Your task to perform on an android device: open chrome privacy settings Image 0: 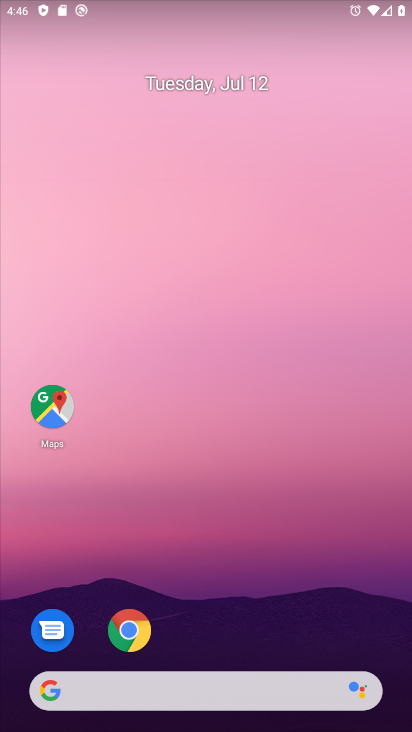
Step 0: drag from (228, 651) to (174, 456)
Your task to perform on an android device: open chrome privacy settings Image 1: 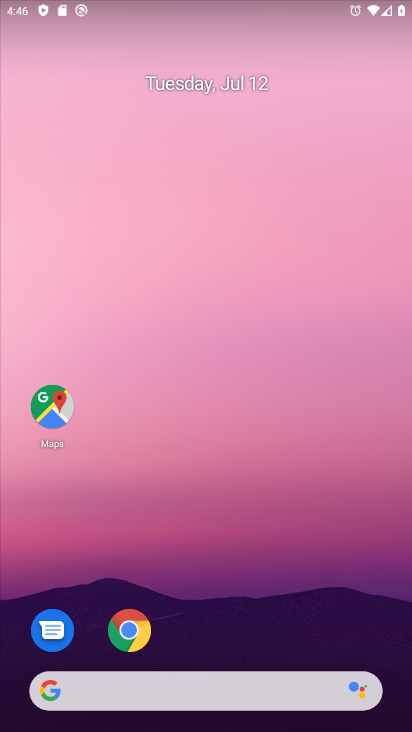
Step 1: drag from (202, 472) to (193, 66)
Your task to perform on an android device: open chrome privacy settings Image 2: 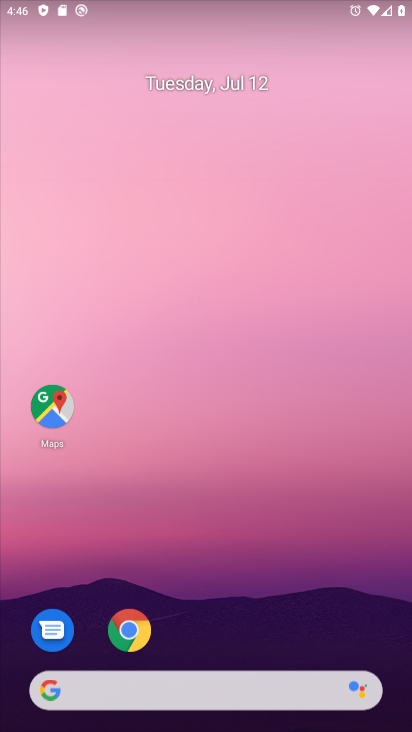
Step 2: drag from (240, 327) to (199, 116)
Your task to perform on an android device: open chrome privacy settings Image 3: 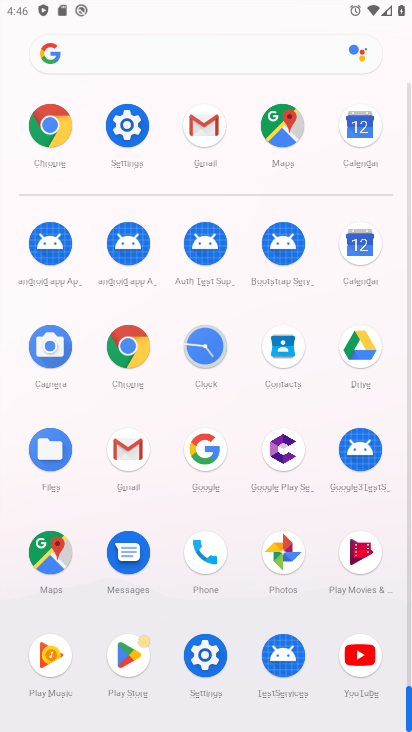
Step 3: click (51, 118)
Your task to perform on an android device: open chrome privacy settings Image 4: 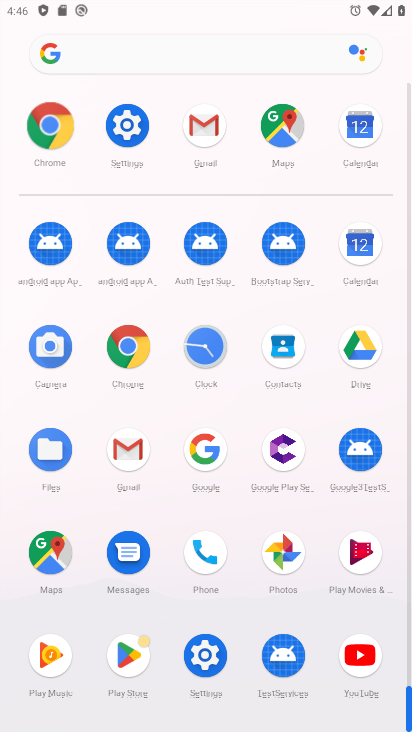
Step 4: click (51, 119)
Your task to perform on an android device: open chrome privacy settings Image 5: 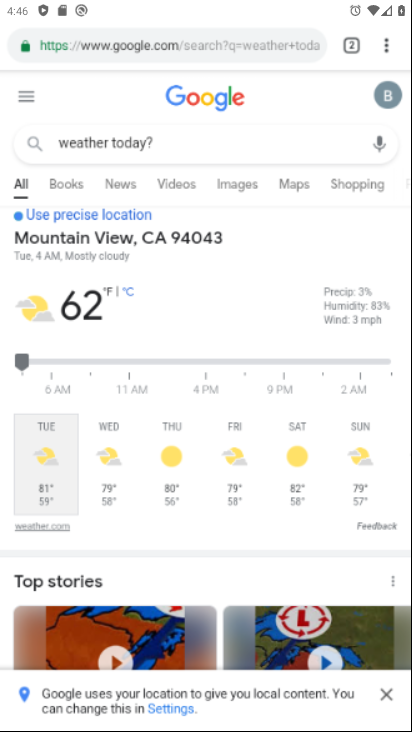
Step 5: click (49, 119)
Your task to perform on an android device: open chrome privacy settings Image 6: 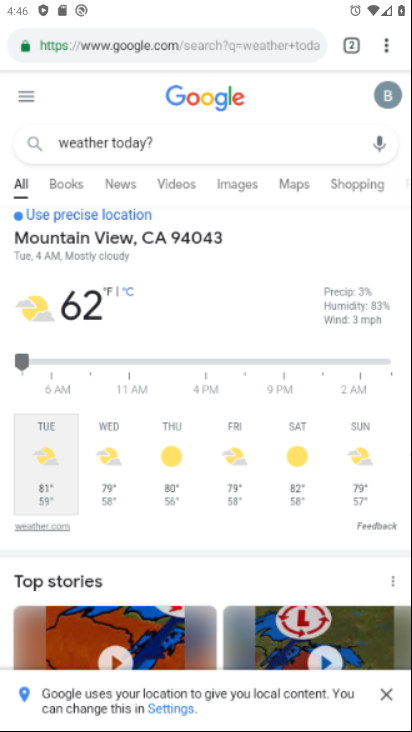
Step 6: click (54, 116)
Your task to perform on an android device: open chrome privacy settings Image 7: 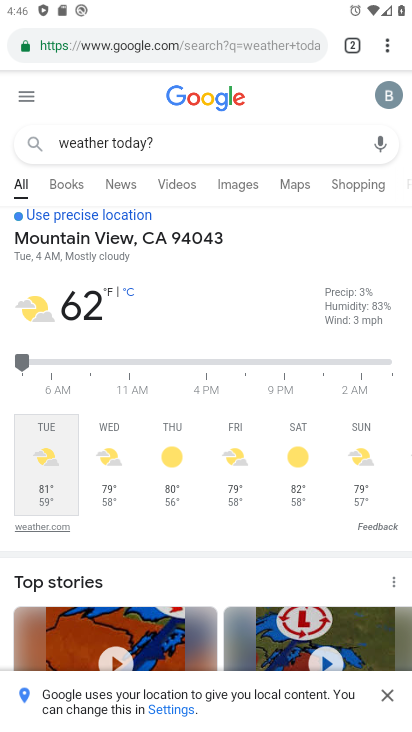
Step 7: drag from (381, 36) to (222, 505)
Your task to perform on an android device: open chrome privacy settings Image 8: 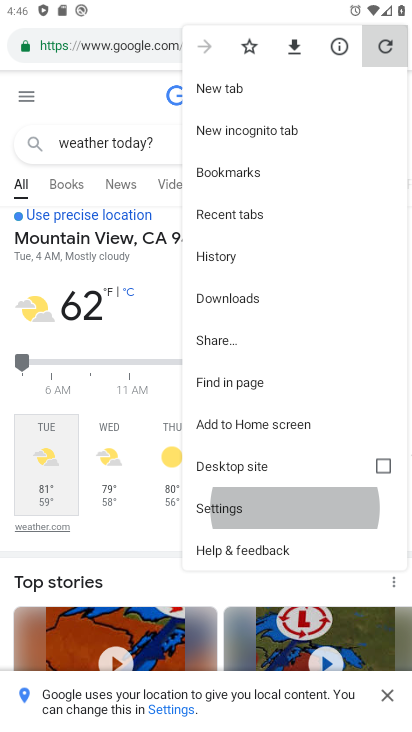
Step 8: click (222, 508)
Your task to perform on an android device: open chrome privacy settings Image 9: 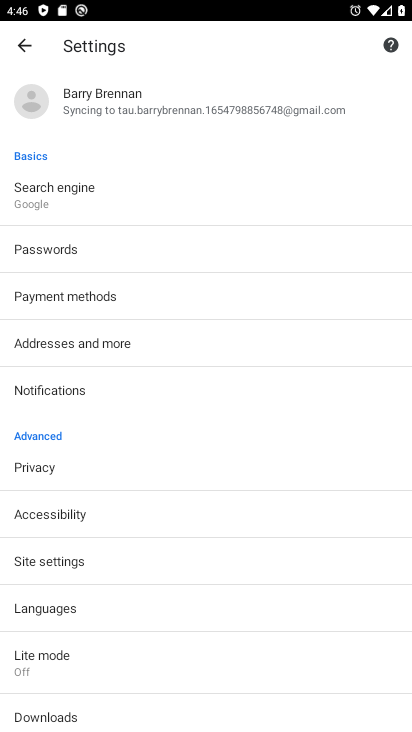
Step 9: click (31, 461)
Your task to perform on an android device: open chrome privacy settings Image 10: 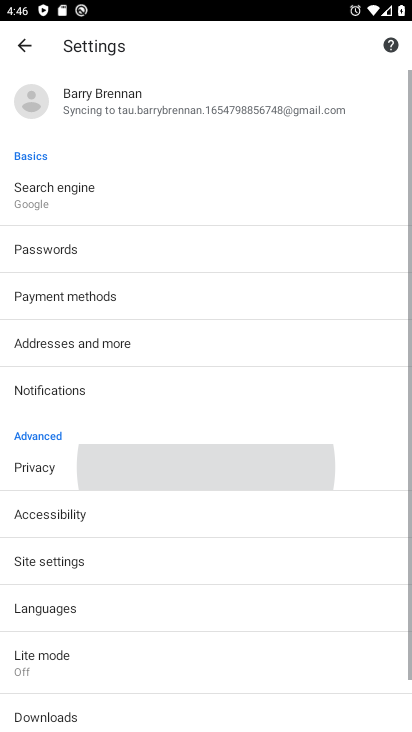
Step 10: click (31, 461)
Your task to perform on an android device: open chrome privacy settings Image 11: 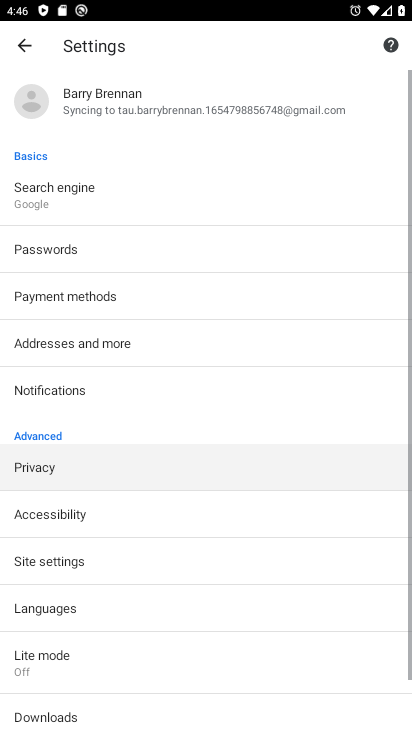
Step 11: click (31, 461)
Your task to perform on an android device: open chrome privacy settings Image 12: 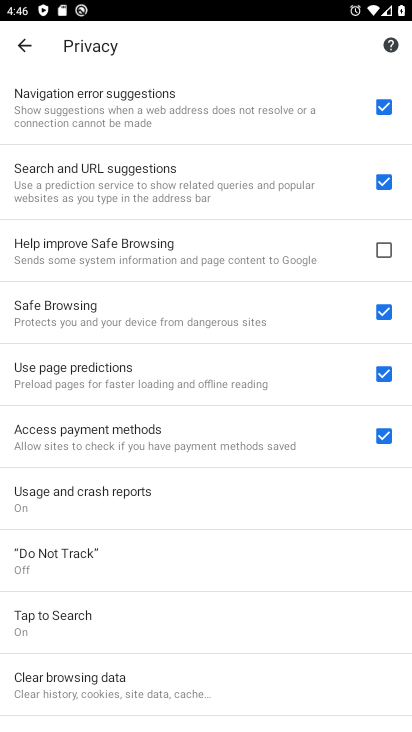
Step 12: task complete